Your task to perform on an android device: Open settings on Google Maps Image 0: 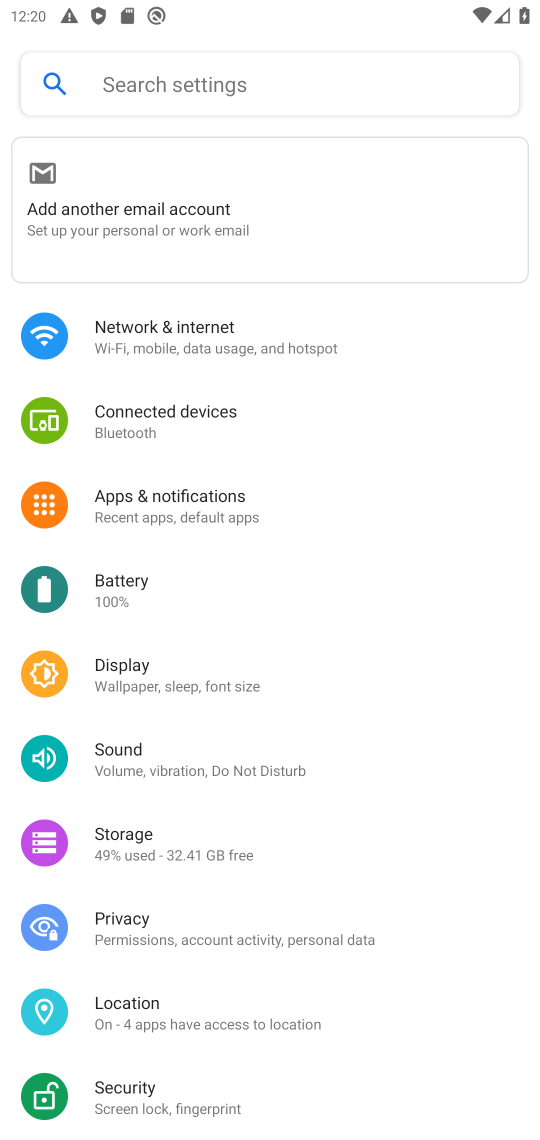
Step 0: press home button
Your task to perform on an android device: Open settings on Google Maps Image 1: 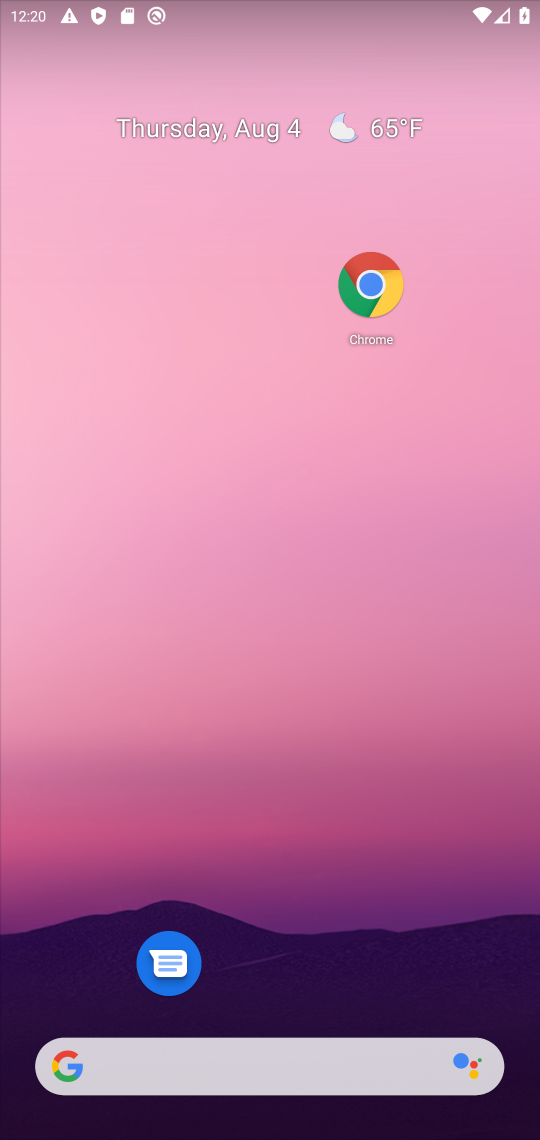
Step 1: drag from (286, 636) to (286, 126)
Your task to perform on an android device: Open settings on Google Maps Image 2: 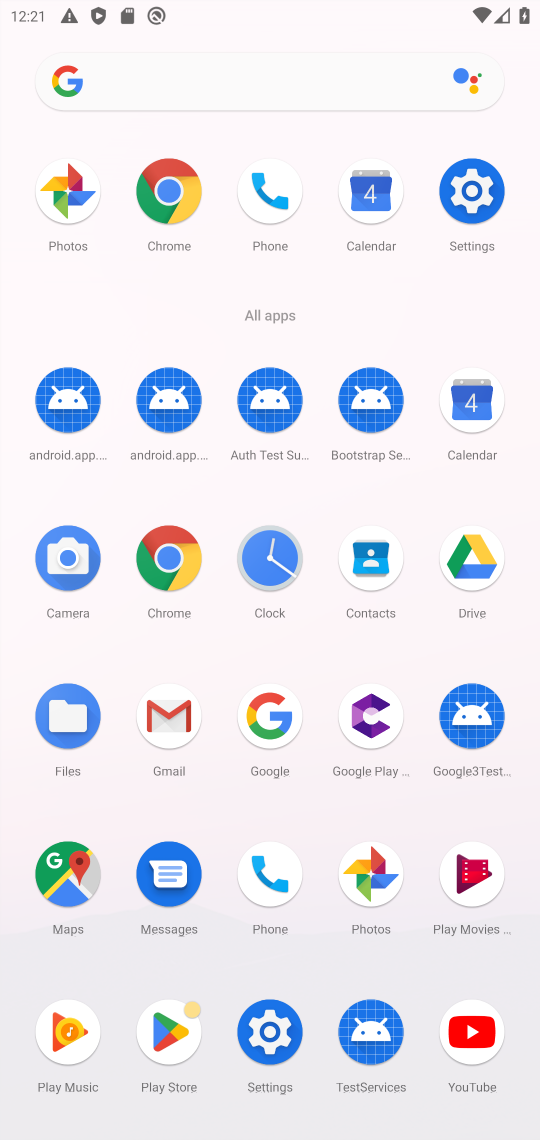
Step 2: click (50, 879)
Your task to perform on an android device: Open settings on Google Maps Image 3: 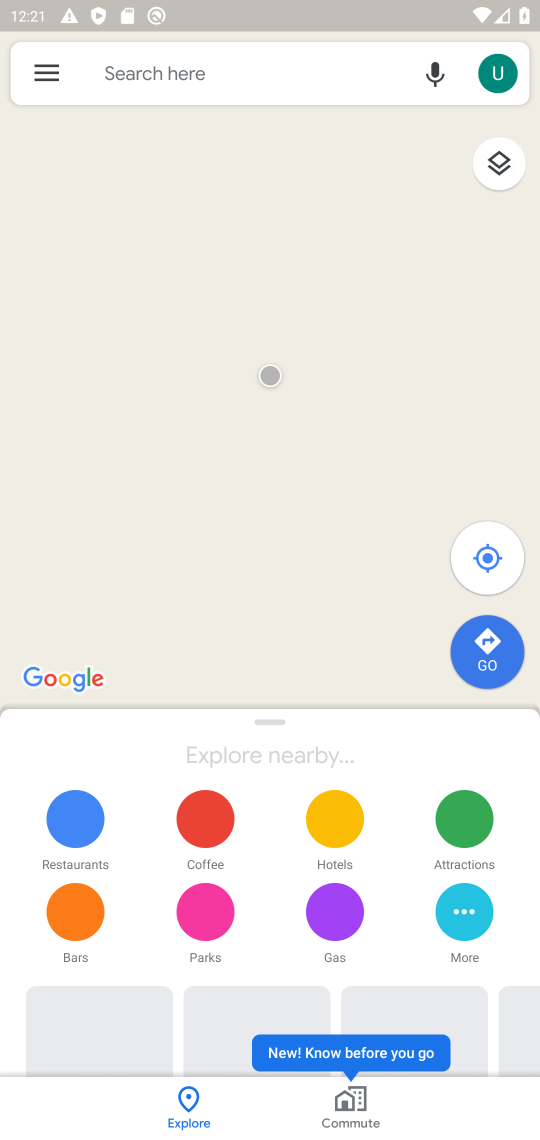
Step 3: click (44, 69)
Your task to perform on an android device: Open settings on Google Maps Image 4: 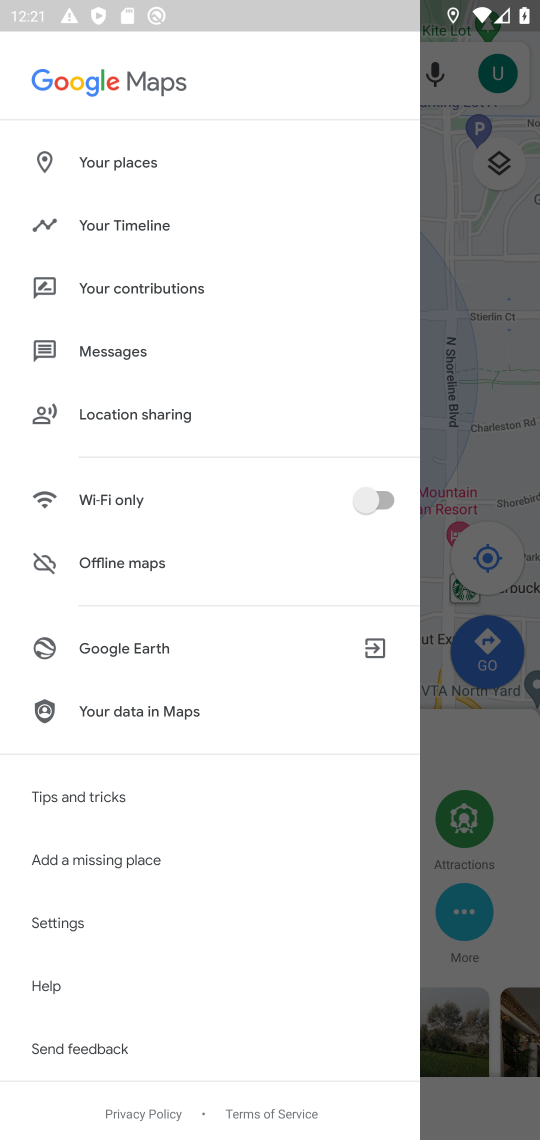
Step 4: click (66, 898)
Your task to perform on an android device: Open settings on Google Maps Image 5: 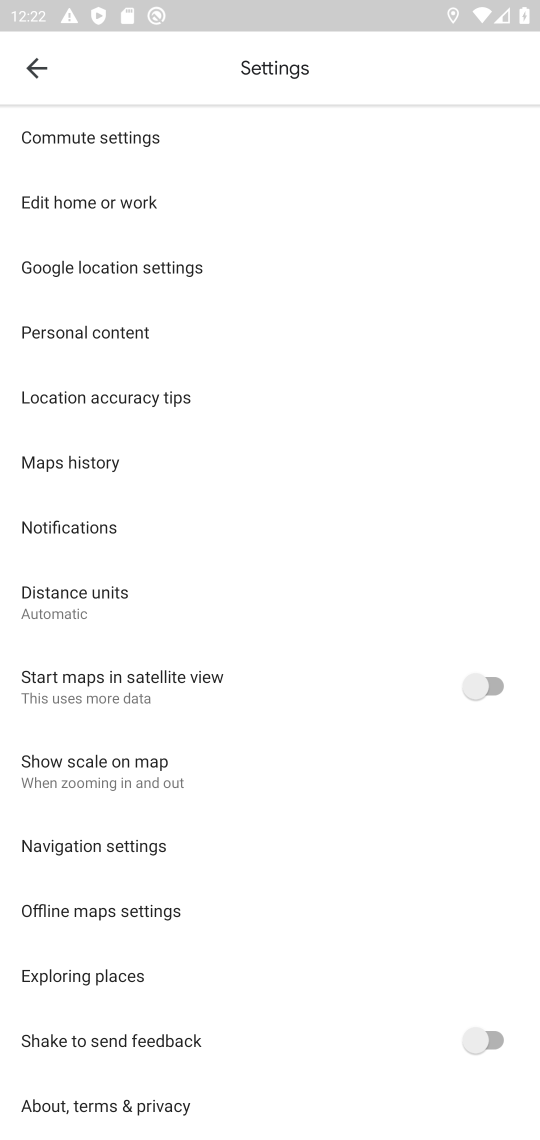
Step 5: task complete